Your task to perform on an android device: Go to wifi settings Image 0: 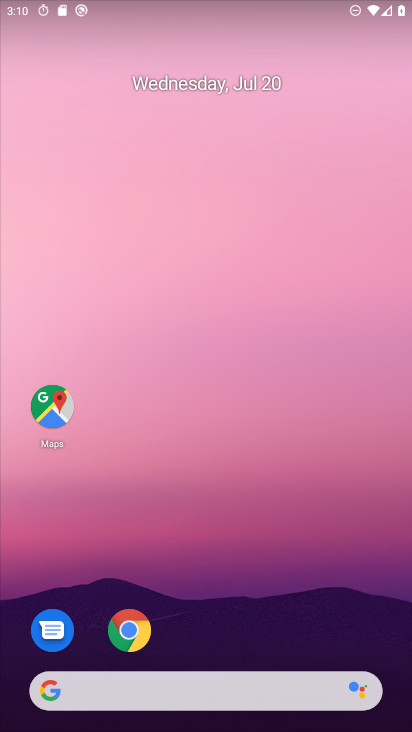
Step 0: drag from (296, 621) to (281, 161)
Your task to perform on an android device: Go to wifi settings Image 1: 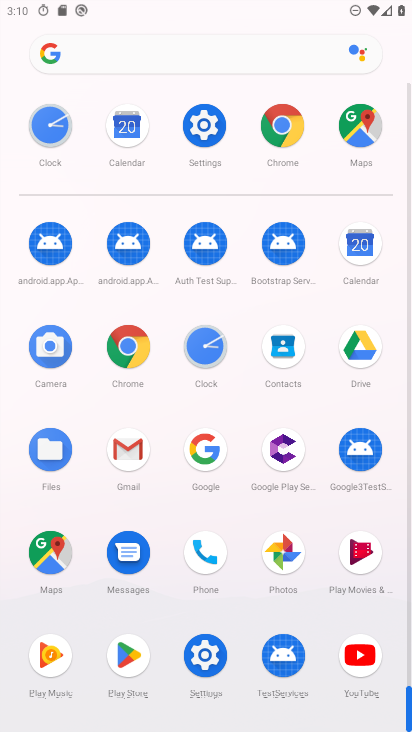
Step 1: click (202, 128)
Your task to perform on an android device: Go to wifi settings Image 2: 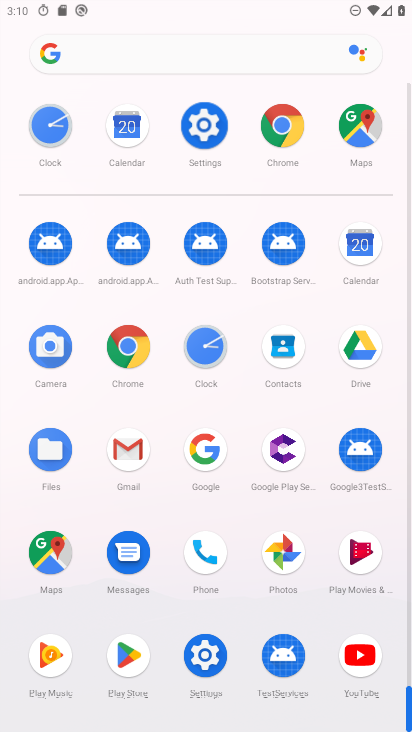
Step 2: click (202, 128)
Your task to perform on an android device: Go to wifi settings Image 3: 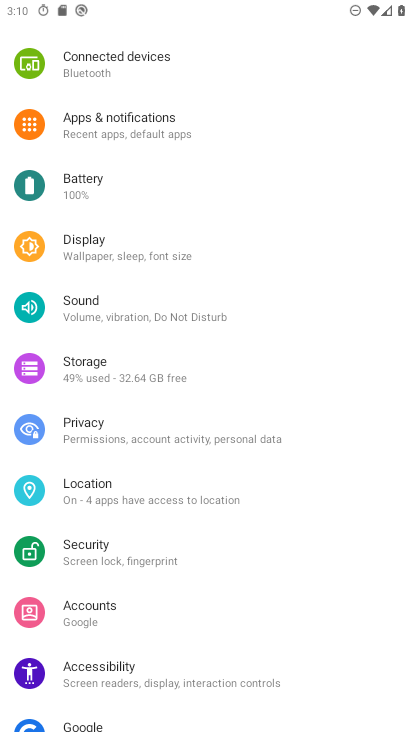
Step 3: drag from (119, 405) to (160, 106)
Your task to perform on an android device: Go to wifi settings Image 4: 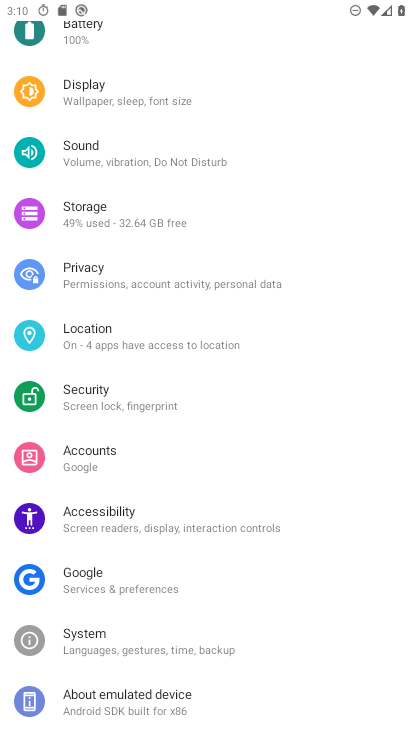
Step 4: drag from (132, 139) to (161, 498)
Your task to perform on an android device: Go to wifi settings Image 5: 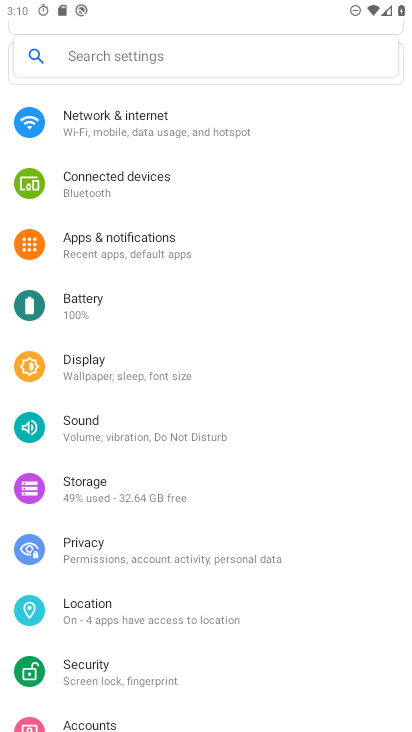
Step 5: drag from (101, 201) to (101, 437)
Your task to perform on an android device: Go to wifi settings Image 6: 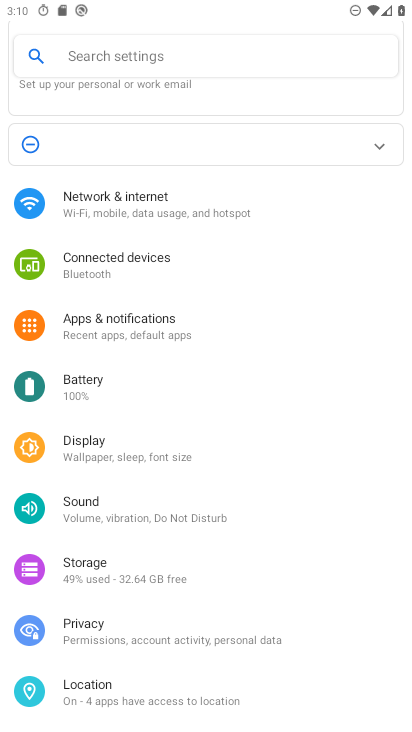
Step 6: click (127, 220)
Your task to perform on an android device: Go to wifi settings Image 7: 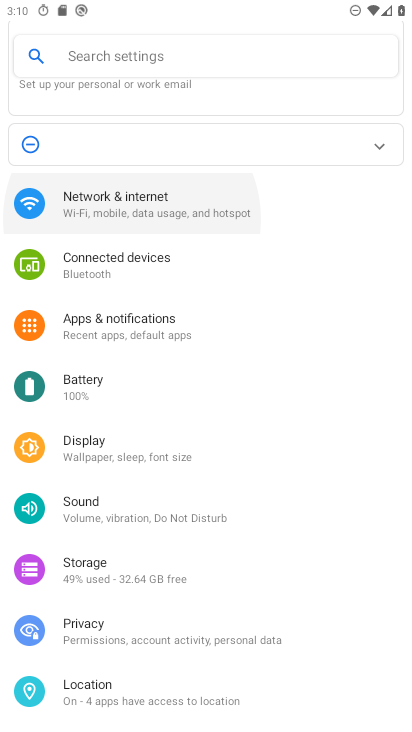
Step 7: click (127, 220)
Your task to perform on an android device: Go to wifi settings Image 8: 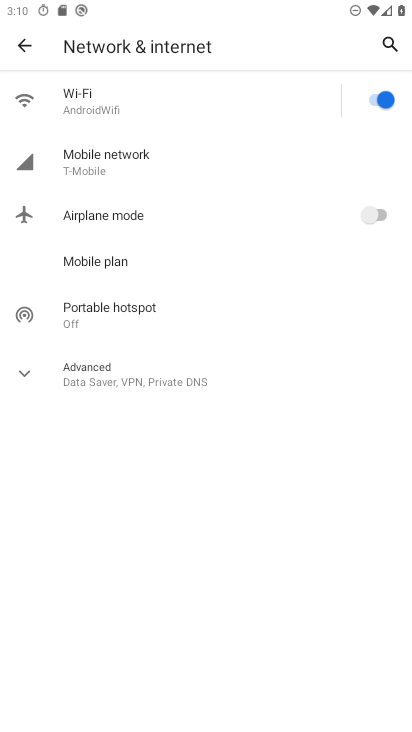
Step 8: task complete